Your task to perform on an android device: Search for the best Mexican restaurants Image 0: 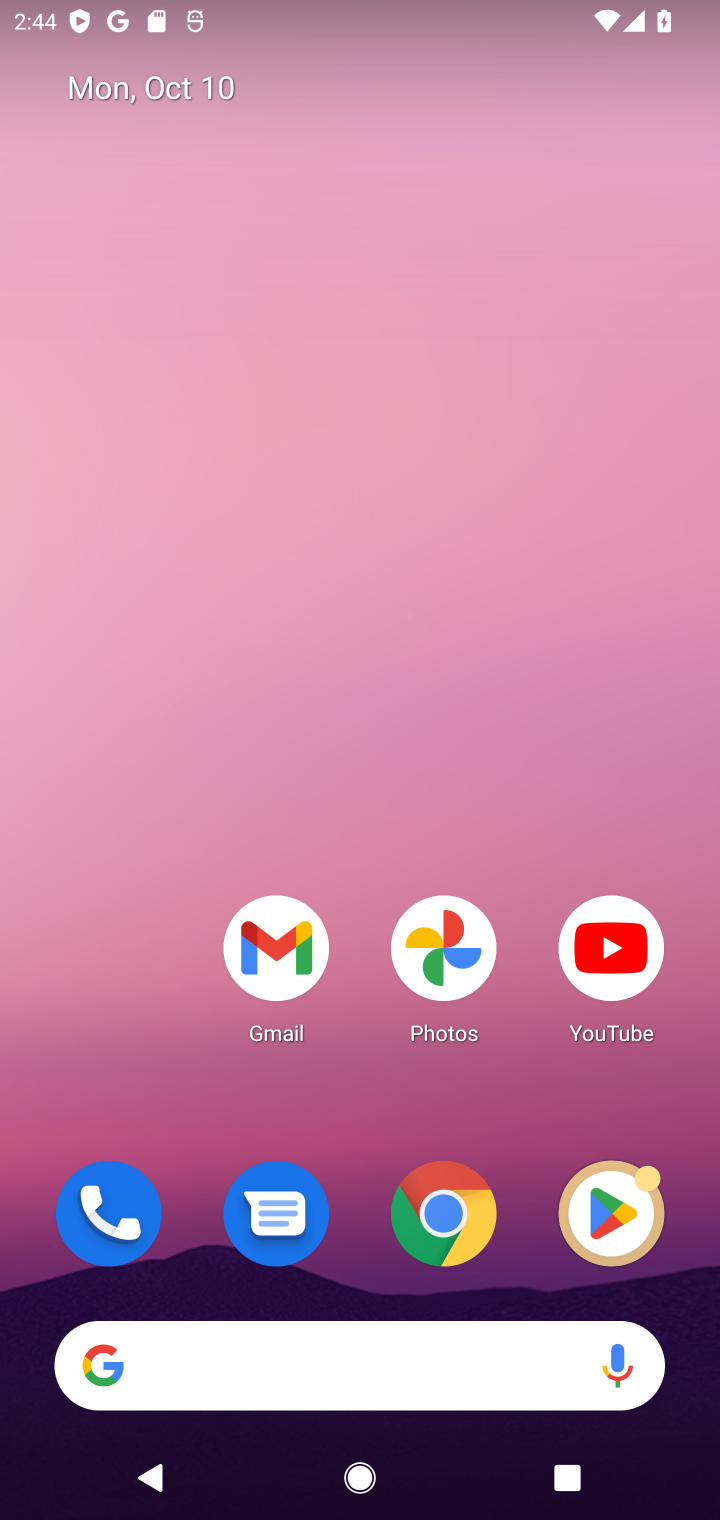
Step 0: drag from (542, 1084) to (572, 89)
Your task to perform on an android device: Search for the best Mexican restaurants Image 1: 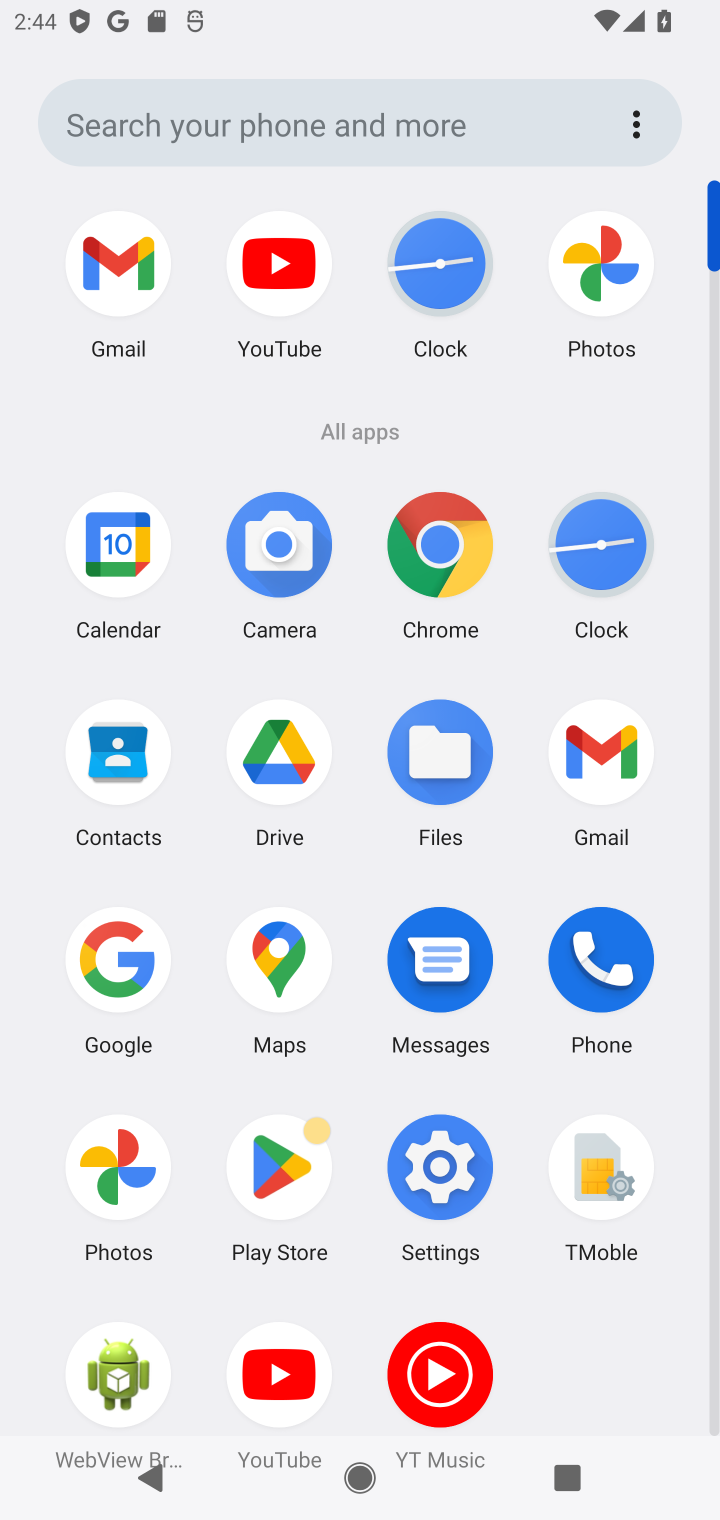
Step 1: click (438, 563)
Your task to perform on an android device: Search for the best Mexican restaurants Image 2: 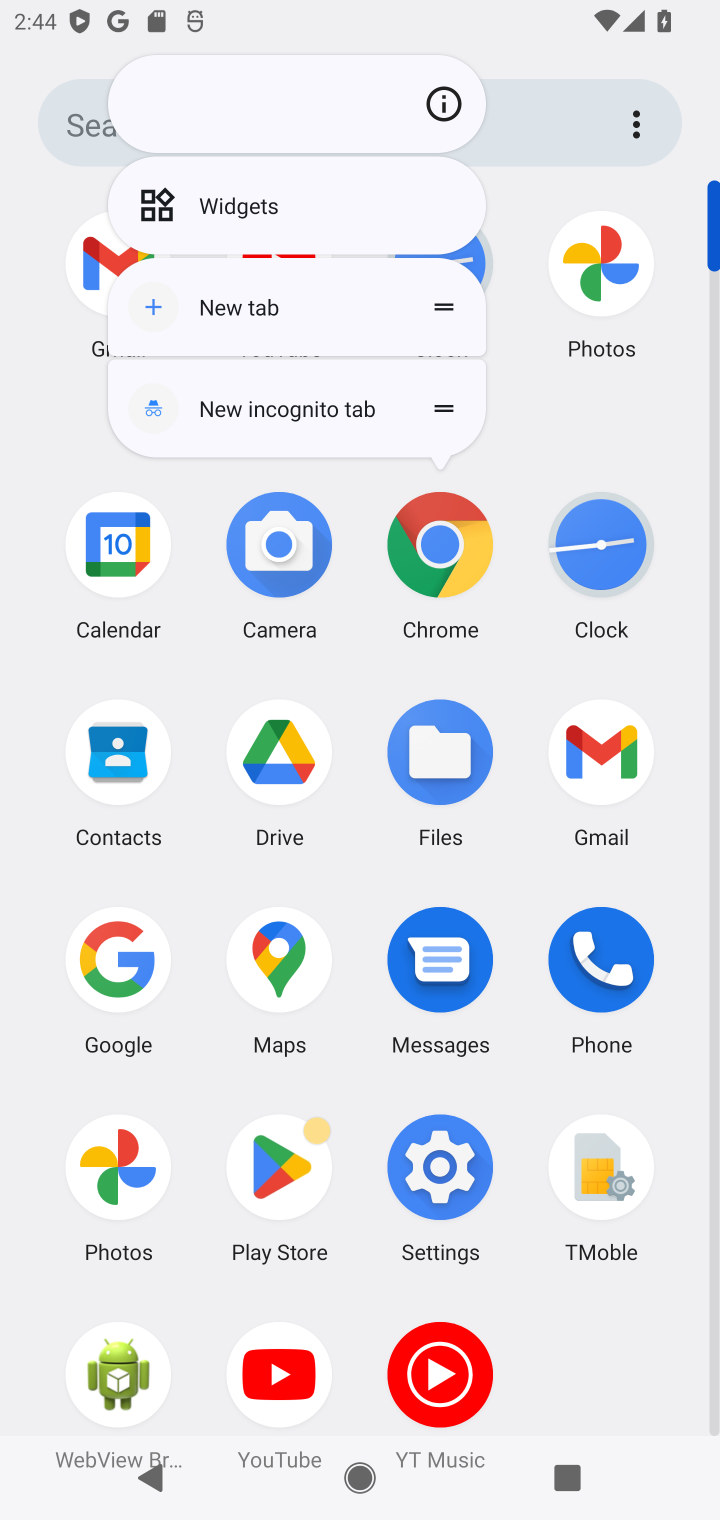
Step 2: click (438, 563)
Your task to perform on an android device: Search for the best Mexican restaurants Image 3: 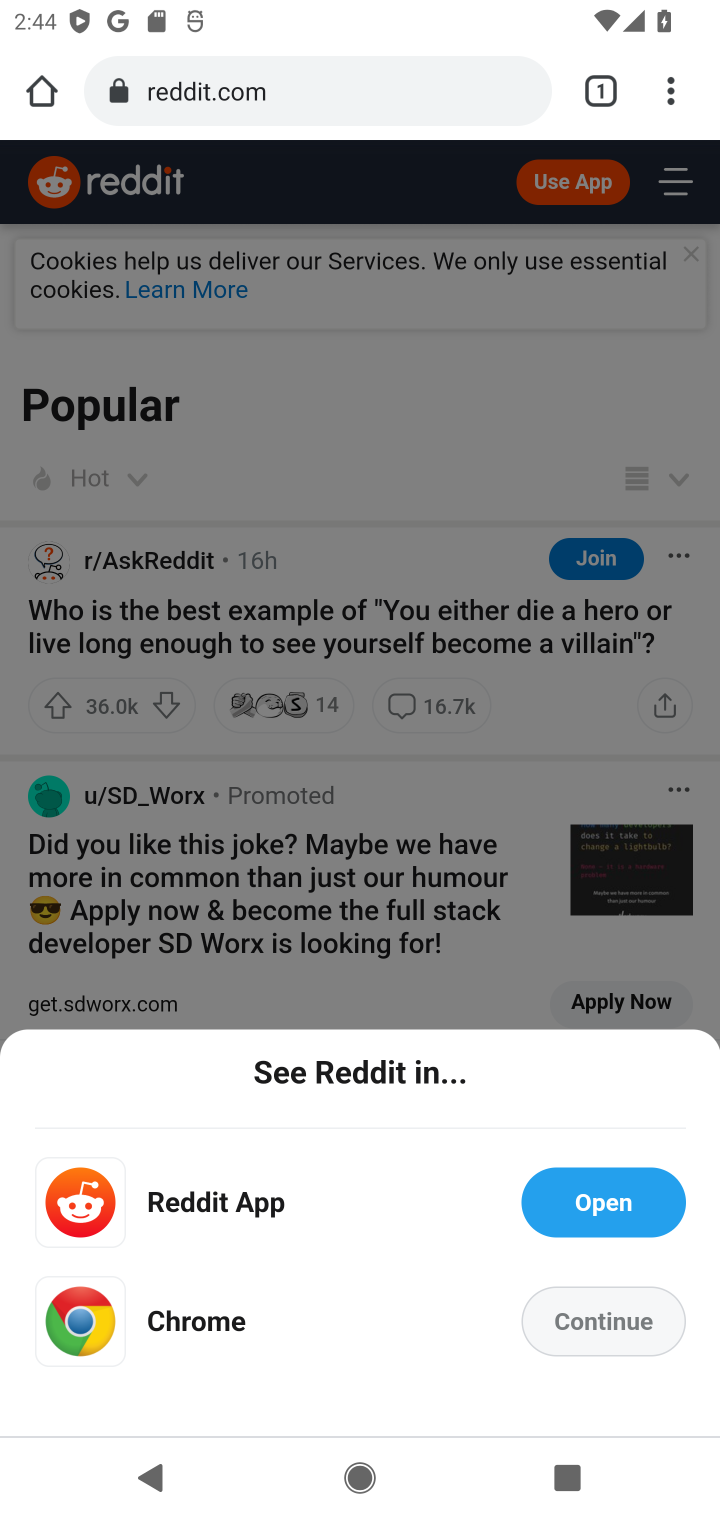
Step 3: click (319, 101)
Your task to perform on an android device: Search for the best Mexican restaurants Image 4: 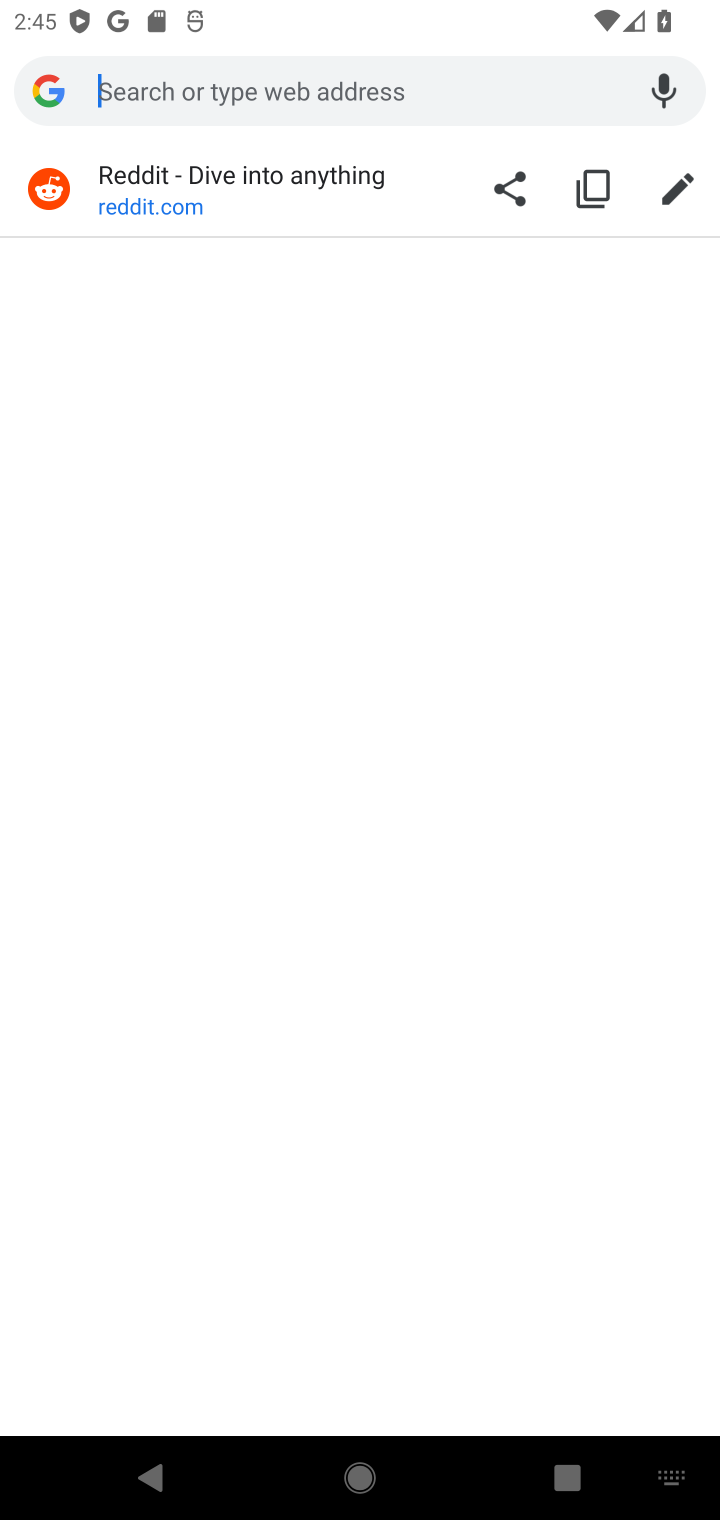
Step 4: type "Mexicen"
Your task to perform on an android device: Search for the best Mexican restaurants Image 5: 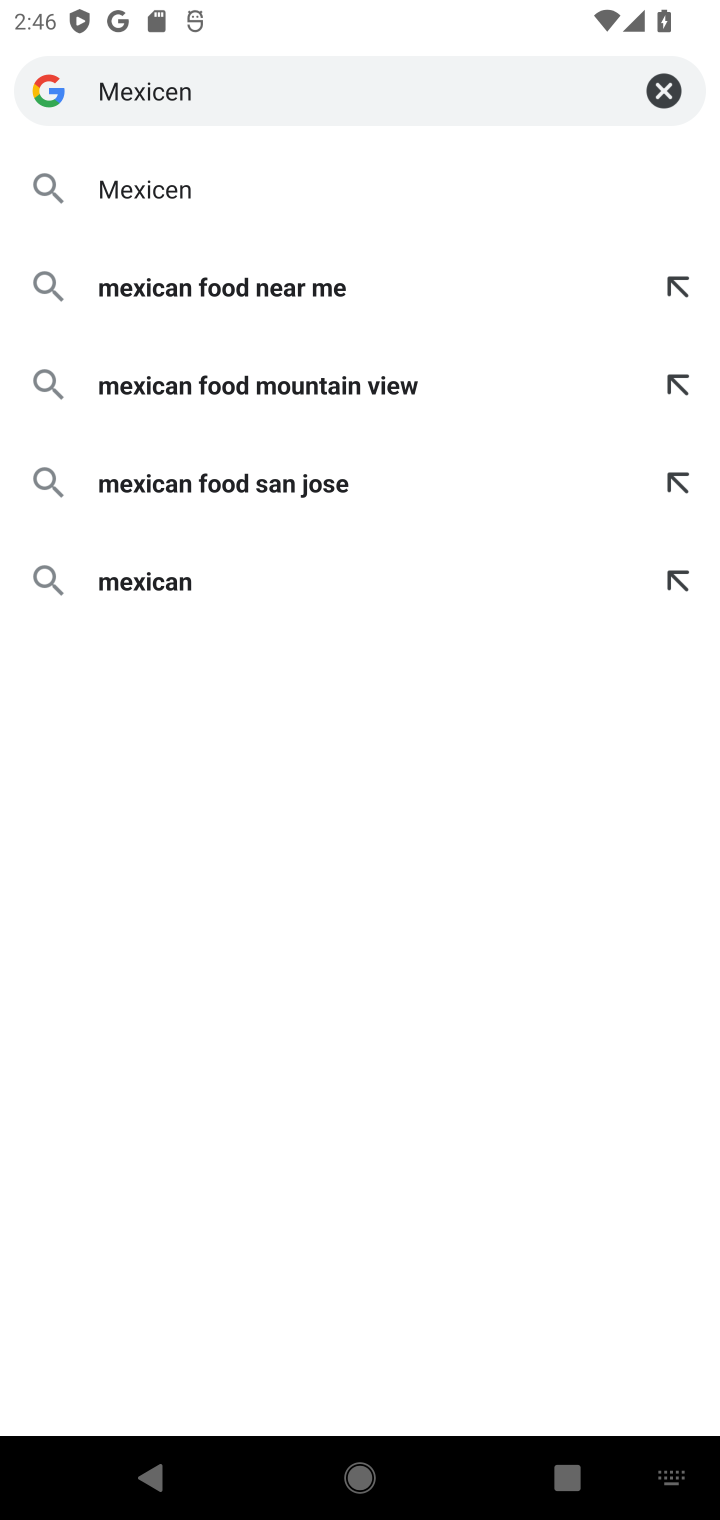
Step 5: type "Mexican restaurants"
Your task to perform on an android device: Search for the best Mexican restaurants Image 6: 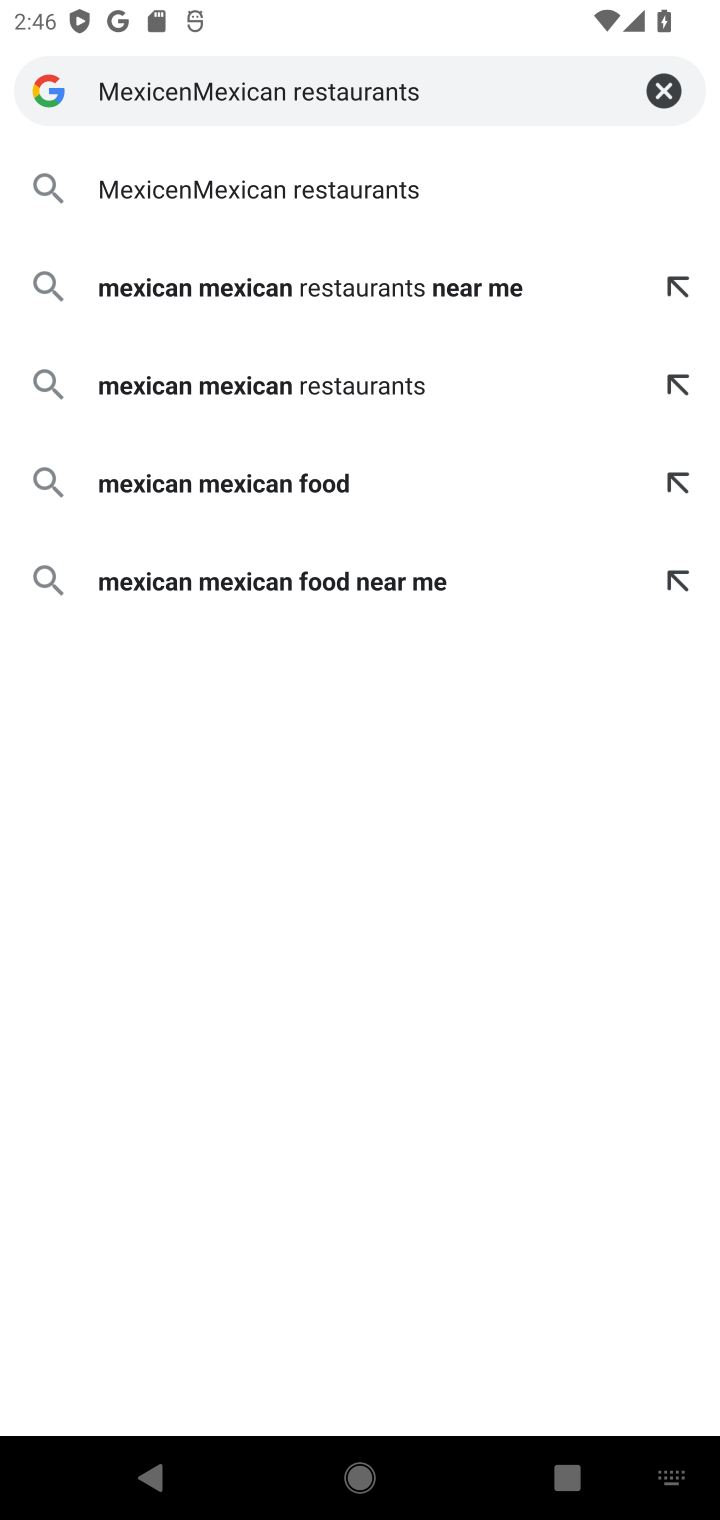
Step 6: click (225, 189)
Your task to perform on an android device: Search for the best Mexican restaurants Image 7: 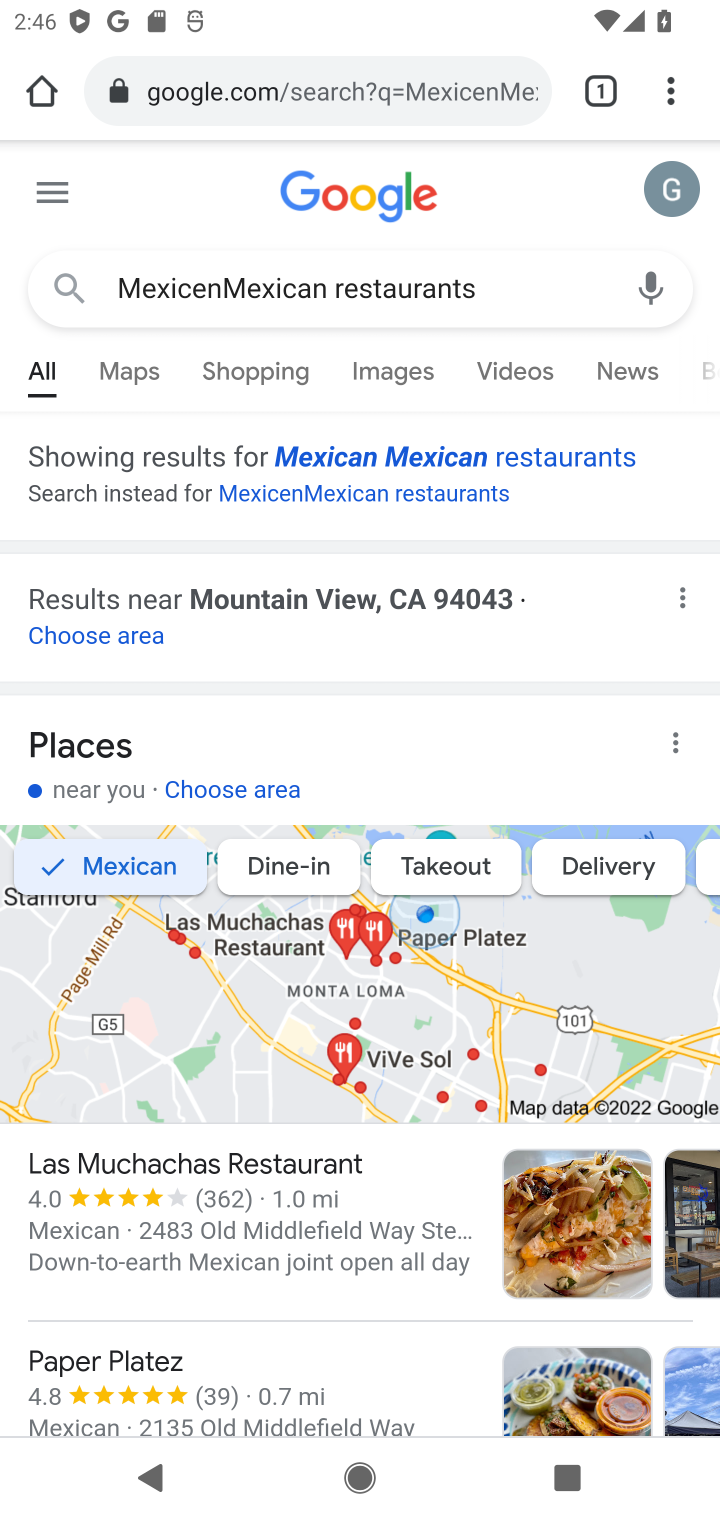
Step 7: task complete